Your task to perform on an android device: open chrome privacy settings Image 0: 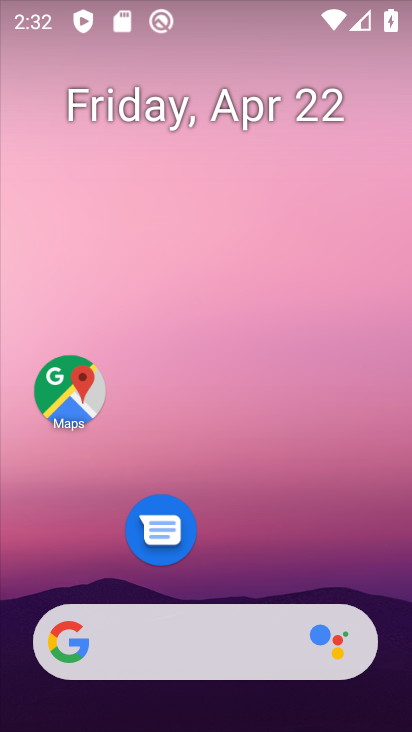
Step 0: drag from (266, 557) to (228, 26)
Your task to perform on an android device: open chrome privacy settings Image 1: 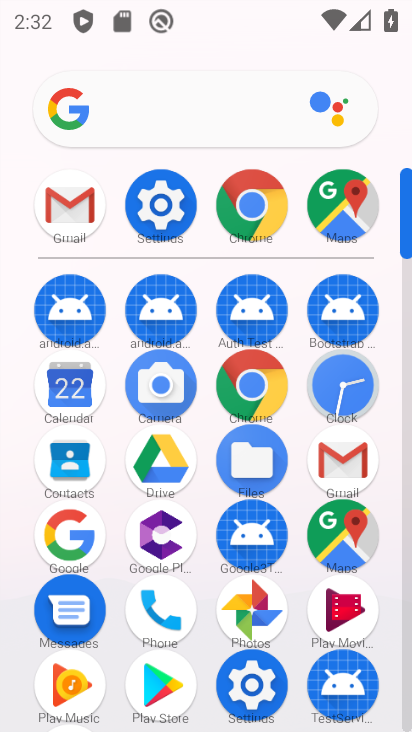
Step 1: click (246, 213)
Your task to perform on an android device: open chrome privacy settings Image 2: 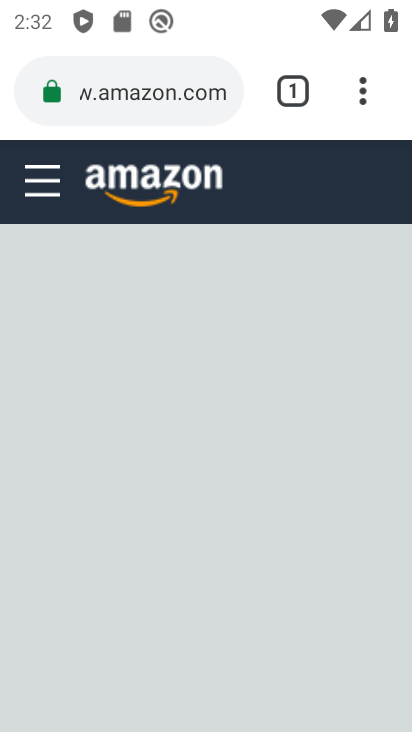
Step 2: click (366, 92)
Your task to perform on an android device: open chrome privacy settings Image 3: 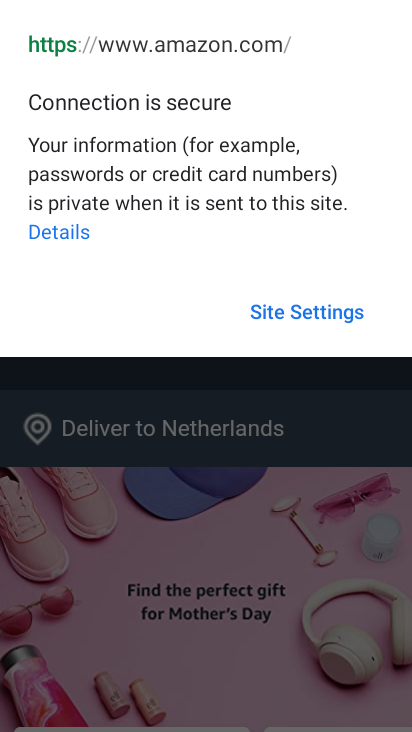
Step 3: click (315, 414)
Your task to perform on an android device: open chrome privacy settings Image 4: 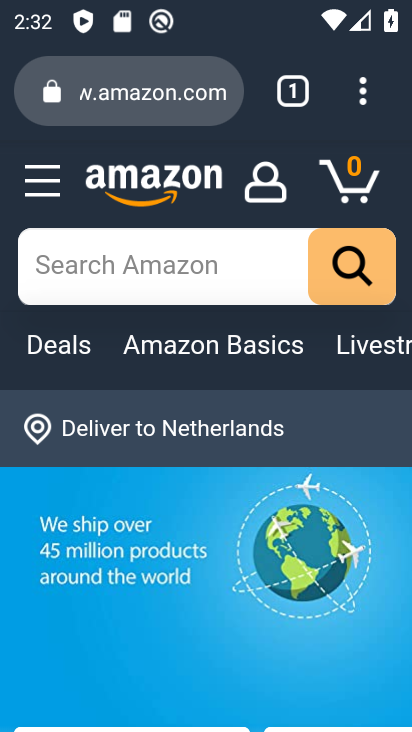
Step 4: click (363, 93)
Your task to perform on an android device: open chrome privacy settings Image 5: 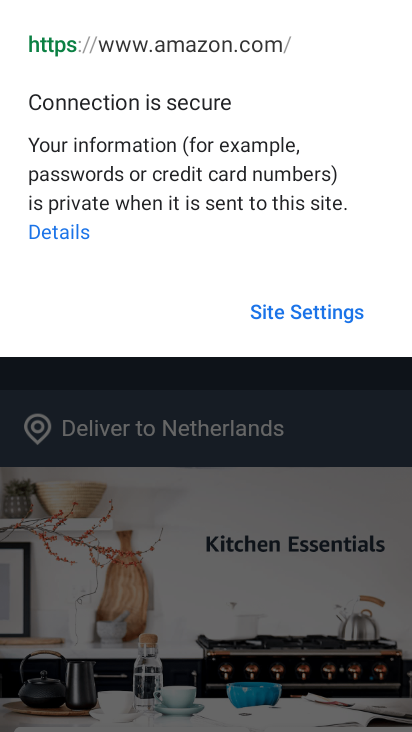
Step 5: click (330, 406)
Your task to perform on an android device: open chrome privacy settings Image 6: 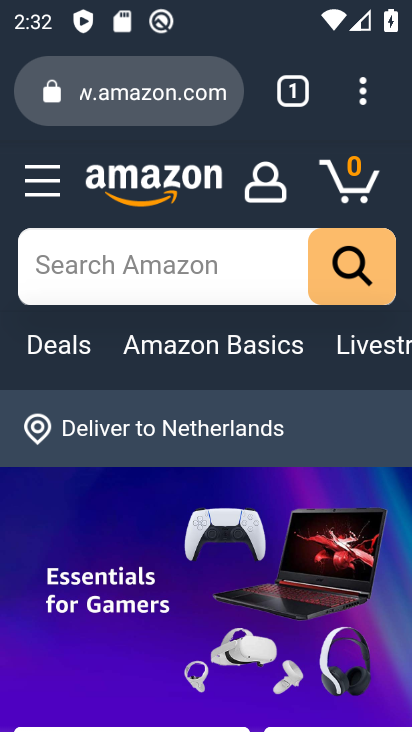
Step 6: click (360, 100)
Your task to perform on an android device: open chrome privacy settings Image 7: 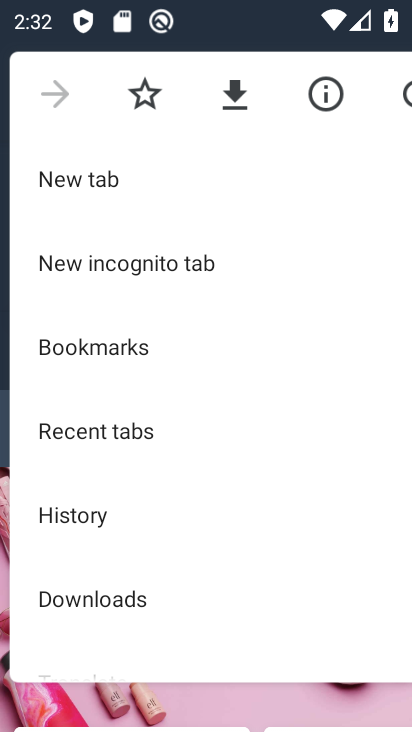
Step 7: drag from (124, 554) to (122, 176)
Your task to perform on an android device: open chrome privacy settings Image 8: 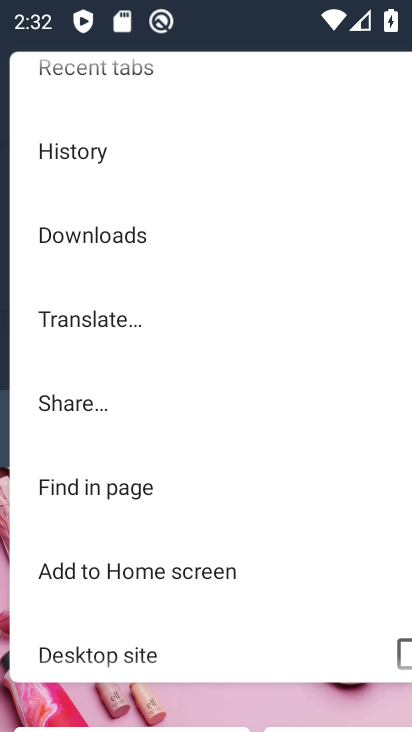
Step 8: drag from (152, 626) to (177, 171)
Your task to perform on an android device: open chrome privacy settings Image 9: 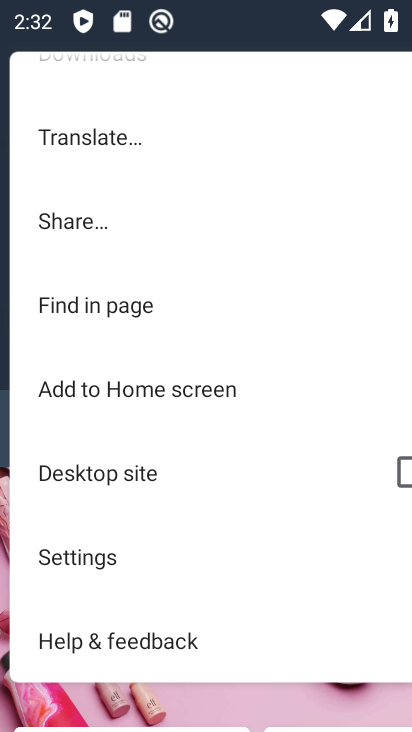
Step 9: click (89, 554)
Your task to perform on an android device: open chrome privacy settings Image 10: 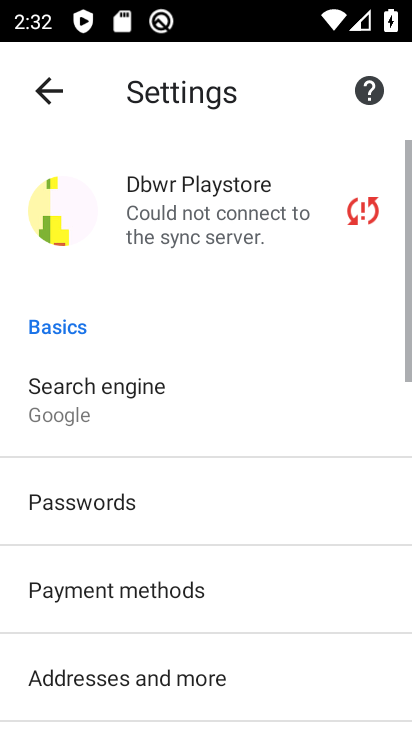
Step 10: drag from (234, 500) to (193, 164)
Your task to perform on an android device: open chrome privacy settings Image 11: 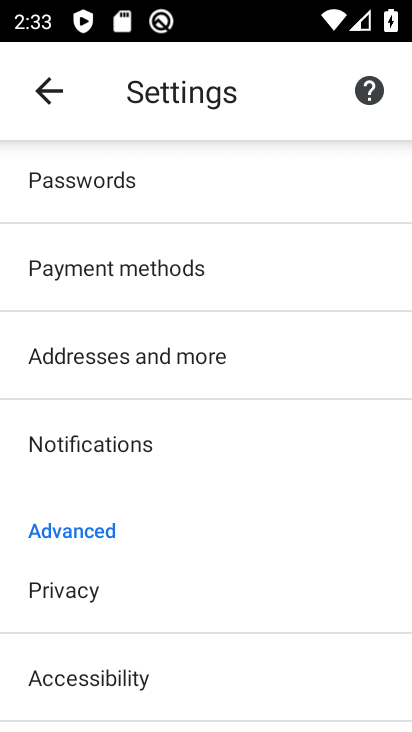
Step 11: click (75, 585)
Your task to perform on an android device: open chrome privacy settings Image 12: 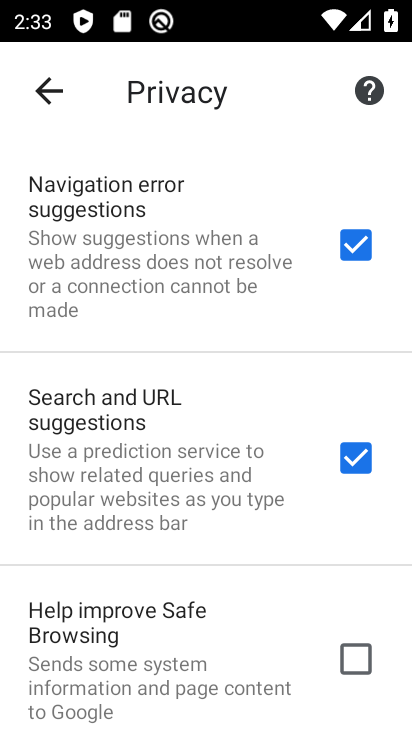
Step 12: task complete